Your task to perform on an android device: turn on the 24-hour format for clock Image 0: 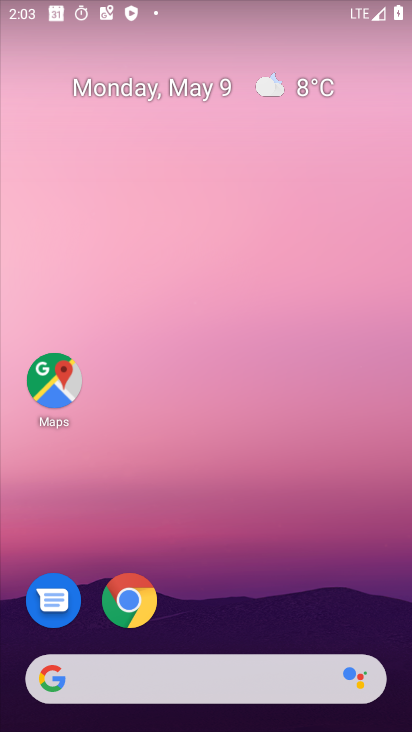
Step 0: drag from (229, 639) to (205, 48)
Your task to perform on an android device: turn on the 24-hour format for clock Image 1: 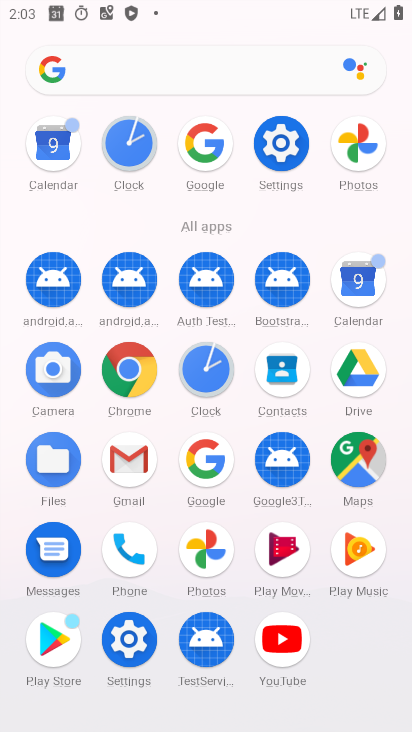
Step 1: click (204, 360)
Your task to perform on an android device: turn on the 24-hour format for clock Image 2: 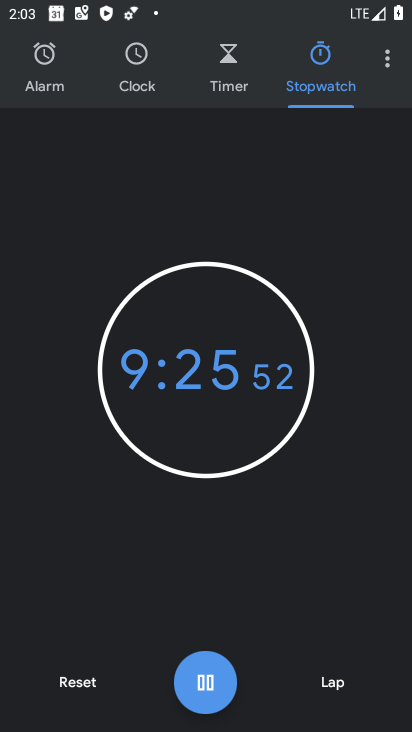
Step 2: click (59, 699)
Your task to perform on an android device: turn on the 24-hour format for clock Image 3: 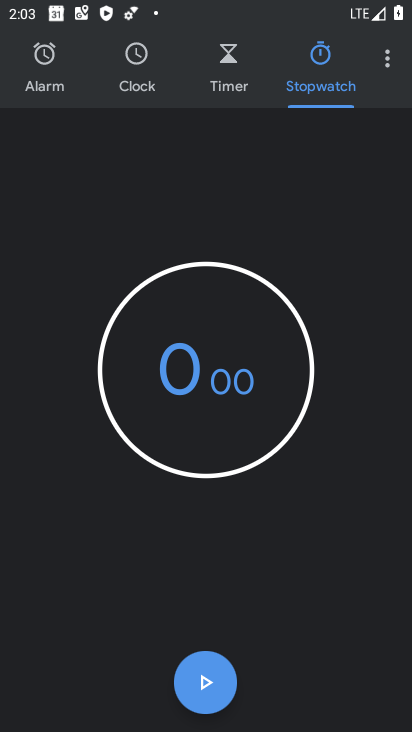
Step 3: click (388, 51)
Your task to perform on an android device: turn on the 24-hour format for clock Image 4: 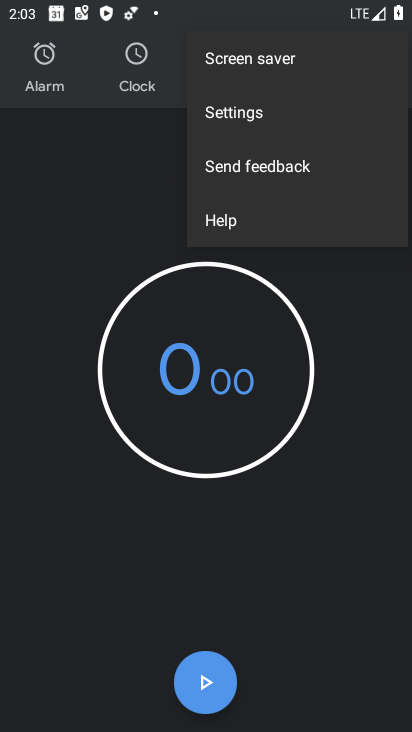
Step 4: click (288, 114)
Your task to perform on an android device: turn on the 24-hour format for clock Image 5: 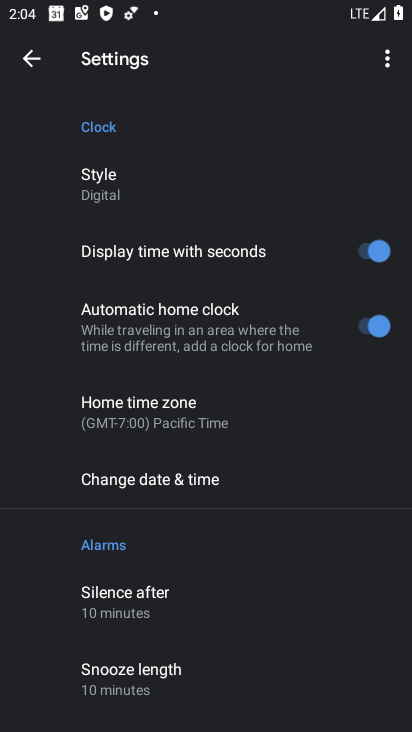
Step 5: click (199, 487)
Your task to perform on an android device: turn on the 24-hour format for clock Image 6: 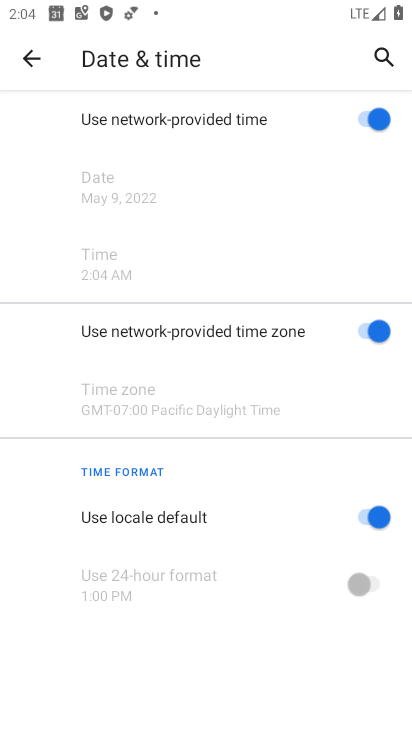
Step 6: click (371, 519)
Your task to perform on an android device: turn on the 24-hour format for clock Image 7: 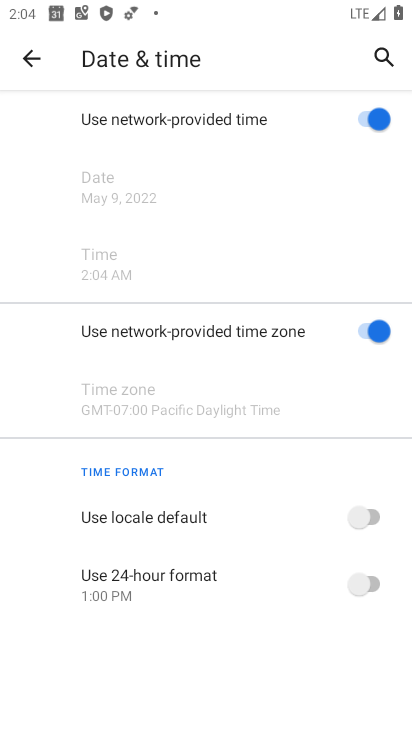
Step 7: click (364, 581)
Your task to perform on an android device: turn on the 24-hour format for clock Image 8: 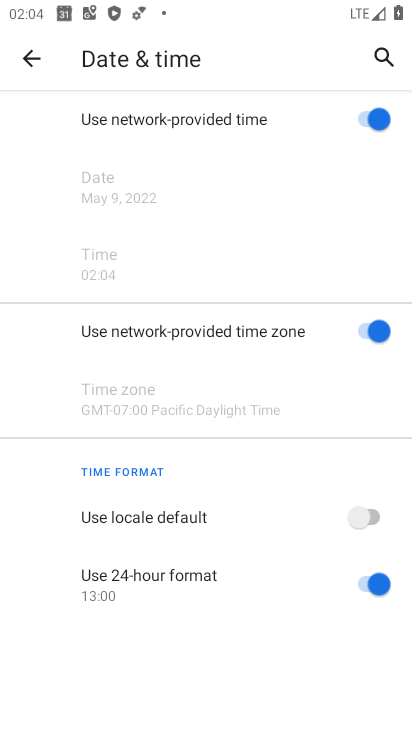
Step 8: task complete